Your task to perform on an android device: add a label to a message in the gmail app Image 0: 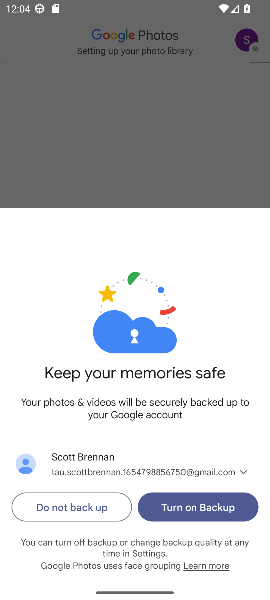
Step 0: click (212, 507)
Your task to perform on an android device: add a label to a message in the gmail app Image 1: 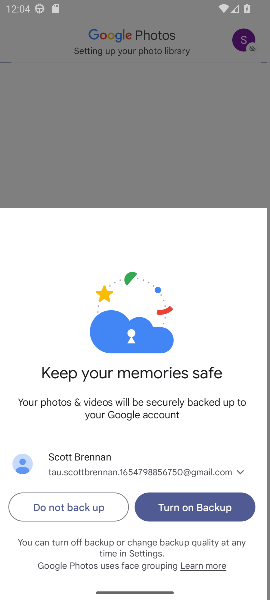
Step 1: press home button
Your task to perform on an android device: add a label to a message in the gmail app Image 2: 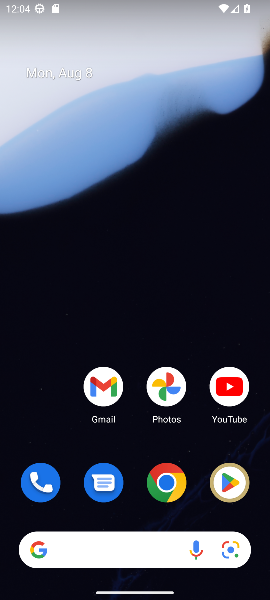
Step 2: drag from (118, 552) to (153, 277)
Your task to perform on an android device: add a label to a message in the gmail app Image 3: 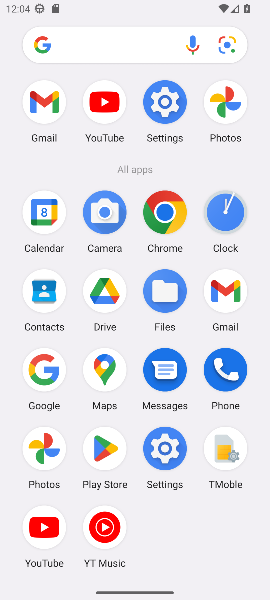
Step 3: click (225, 295)
Your task to perform on an android device: add a label to a message in the gmail app Image 4: 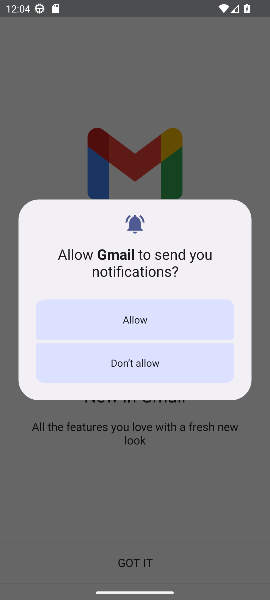
Step 4: click (158, 481)
Your task to perform on an android device: add a label to a message in the gmail app Image 5: 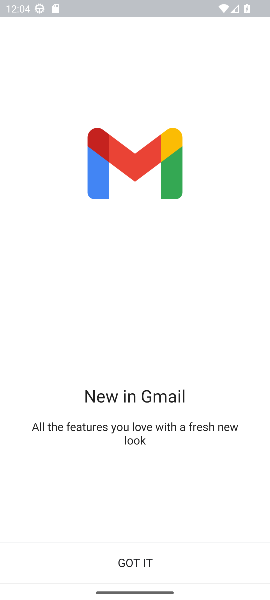
Step 5: click (109, 566)
Your task to perform on an android device: add a label to a message in the gmail app Image 6: 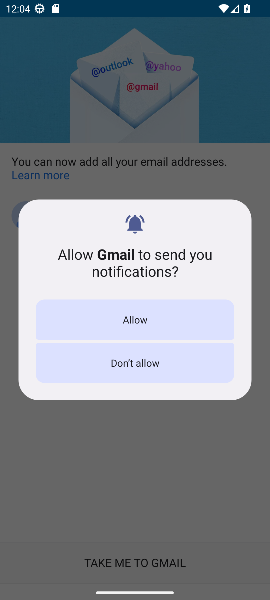
Step 6: click (142, 358)
Your task to perform on an android device: add a label to a message in the gmail app Image 7: 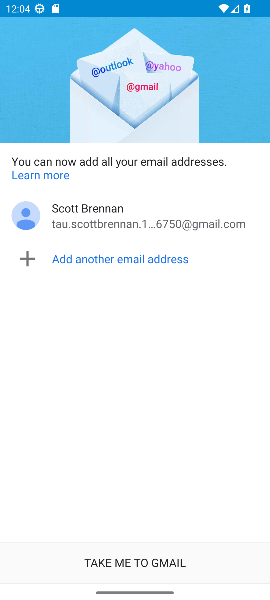
Step 7: click (143, 558)
Your task to perform on an android device: add a label to a message in the gmail app Image 8: 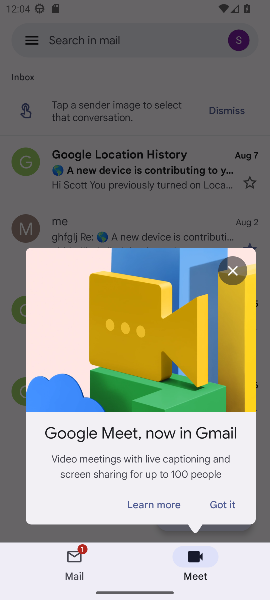
Step 8: click (236, 271)
Your task to perform on an android device: add a label to a message in the gmail app Image 9: 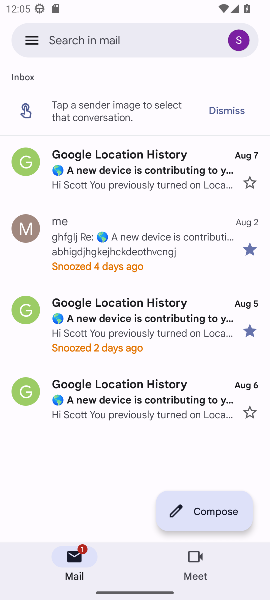
Step 9: click (138, 153)
Your task to perform on an android device: add a label to a message in the gmail app Image 10: 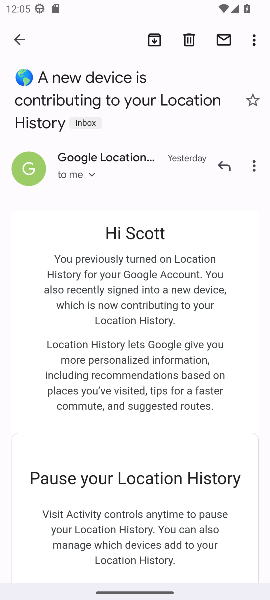
Step 10: click (254, 39)
Your task to perform on an android device: add a label to a message in the gmail app Image 11: 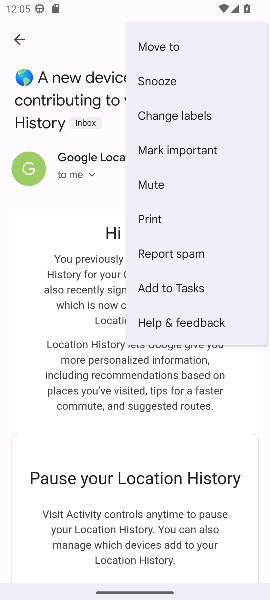
Step 11: click (164, 110)
Your task to perform on an android device: add a label to a message in the gmail app Image 12: 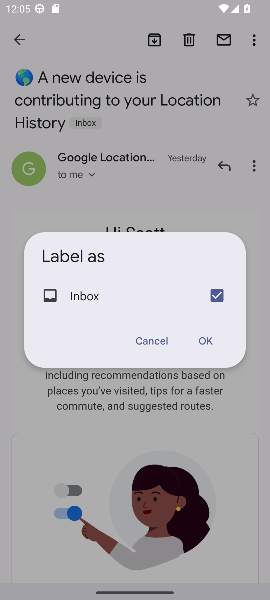
Step 12: click (207, 348)
Your task to perform on an android device: add a label to a message in the gmail app Image 13: 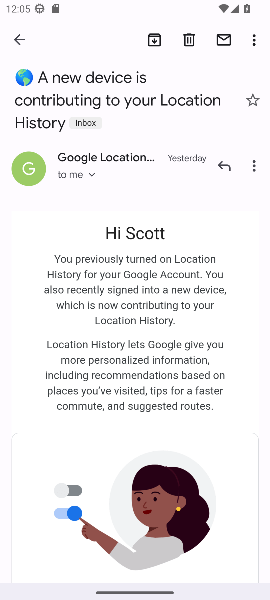
Step 13: task complete